Your task to perform on an android device: make emails show in primary in the gmail app Image 0: 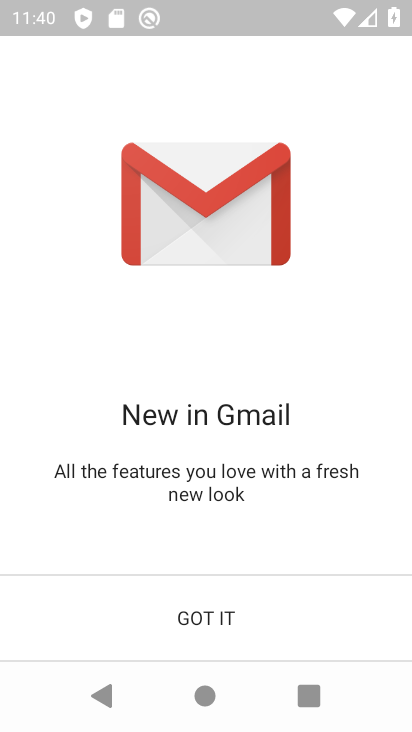
Step 0: press home button
Your task to perform on an android device: make emails show in primary in the gmail app Image 1: 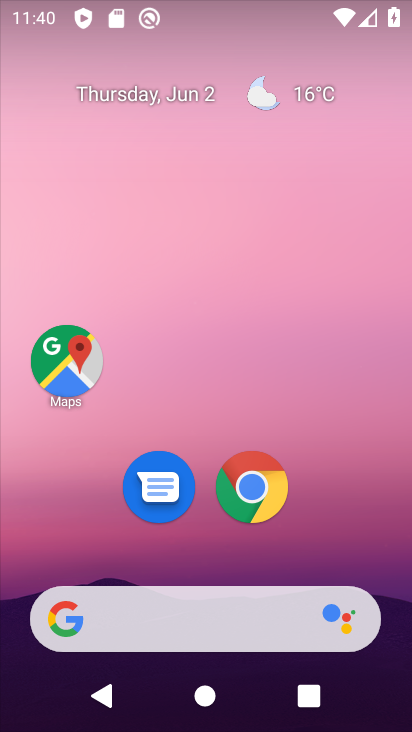
Step 1: drag from (311, 525) to (166, 0)
Your task to perform on an android device: make emails show in primary in the gmail app Image 2: 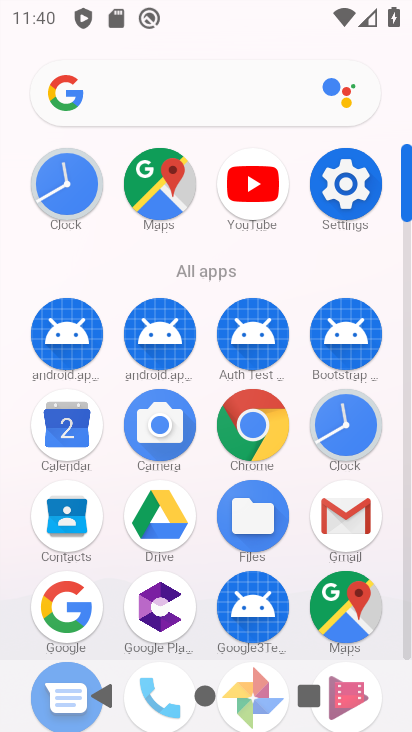
Step 2: click (342, 512)
Your task to perform on an android device: make emails show in primary in the gmail app Image 3: 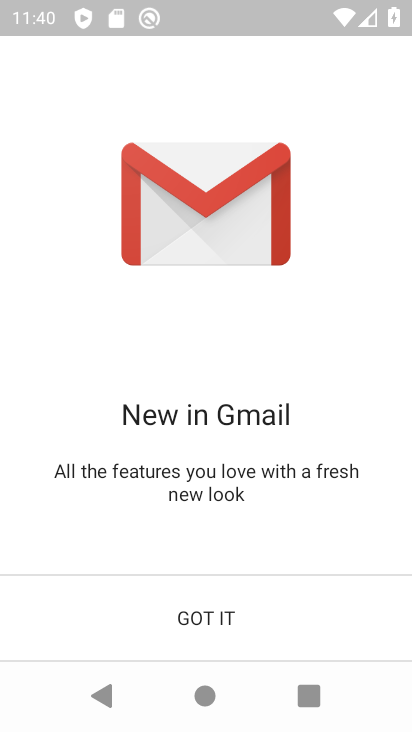
Step 3: click (137, 601)
Your task to perform on an android device: make emails show in primary in the gmail app Image 4: 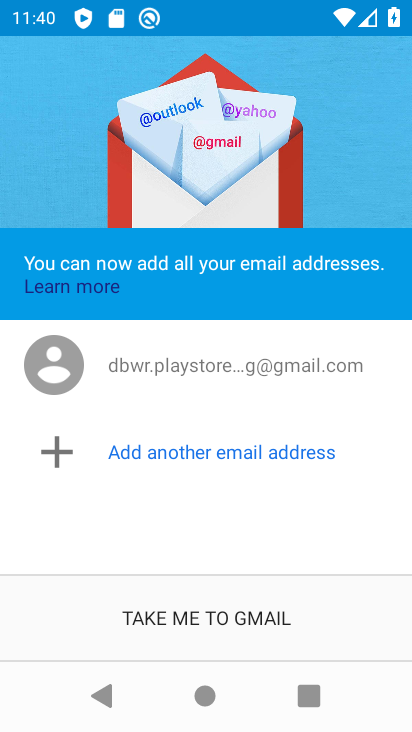
Step 4: click (157, 630)
Your task to perform on an android device: make emails show in primary in the gmail app Image 5: 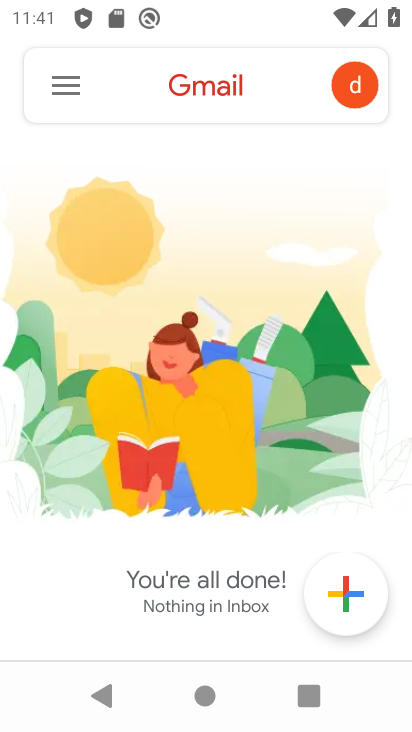
Step 5: click (56, 95)
Your task to perform on an android device: make emails show in primary in the gmail app Image 6: 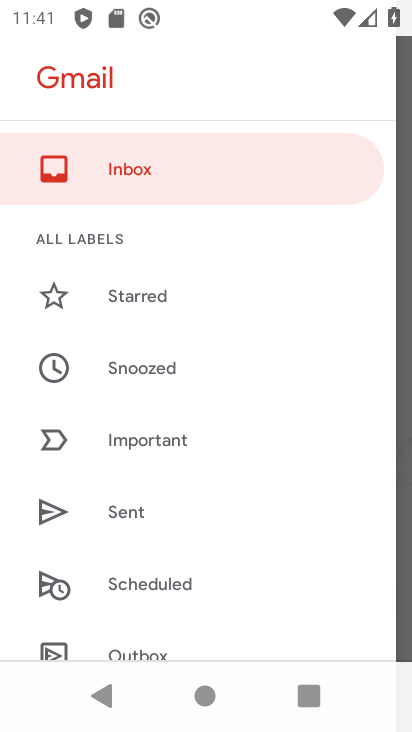
Step 6: drag from (233, 610) to (213, 21)
Your task to perform on an android device: make emails show in primary in the gmail app Image 7: 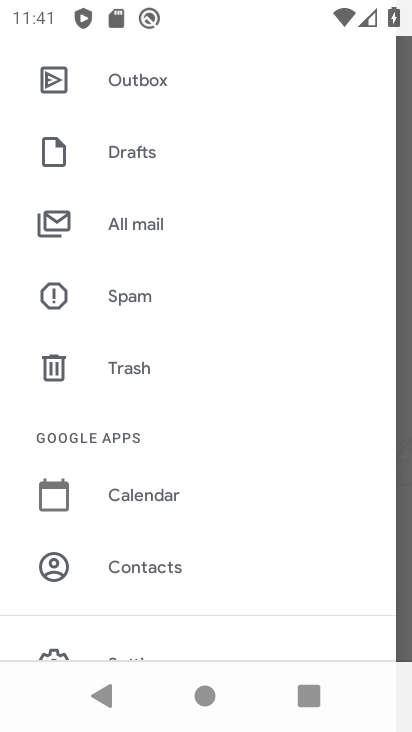
Step 7: drag from (246, 574) to (225, 295)
Your task to perform on an android device: make emails show in primary in the gmail app Image 8: 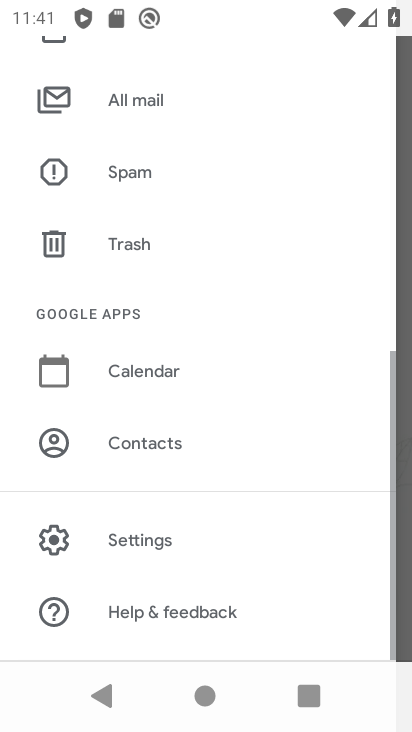
Step 8: click (132, 545)
Your task to perform on an android device: make emails show in primary in the gmail app Image 9: 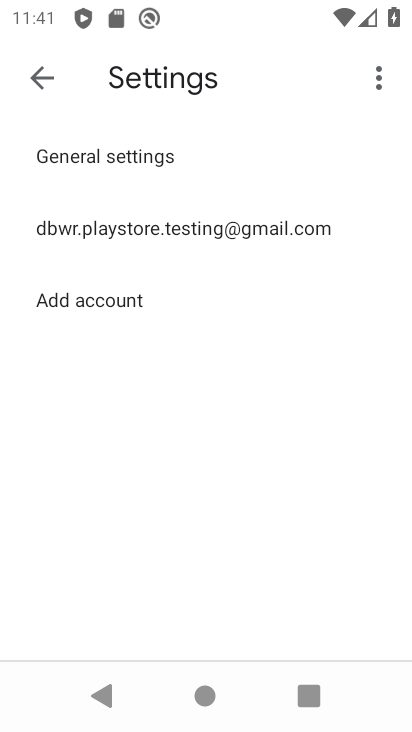
Step 9: click (118, 231)
Your task to perform on an android device: make emails show in primary in the gmail app Image 10: 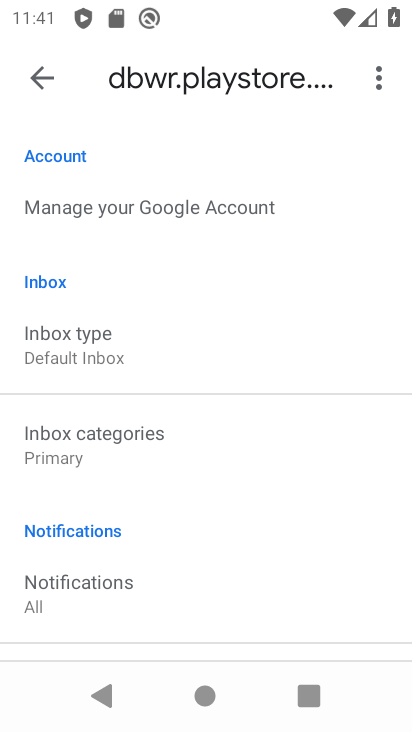
Step 10: click (91, 440)
Your task to perform on an android device: make emails show in primary in the gmail app Image 11: 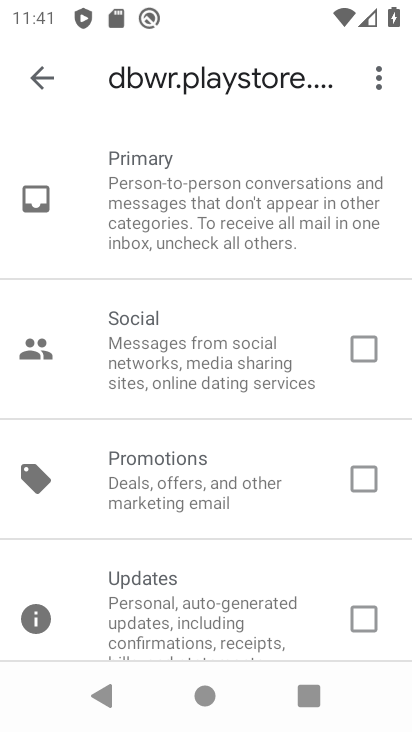
Step 11: drag from (321, 582) to (354, 170)
Your task to perform on an android device: make emails show in primary in the gmail app Image 12: 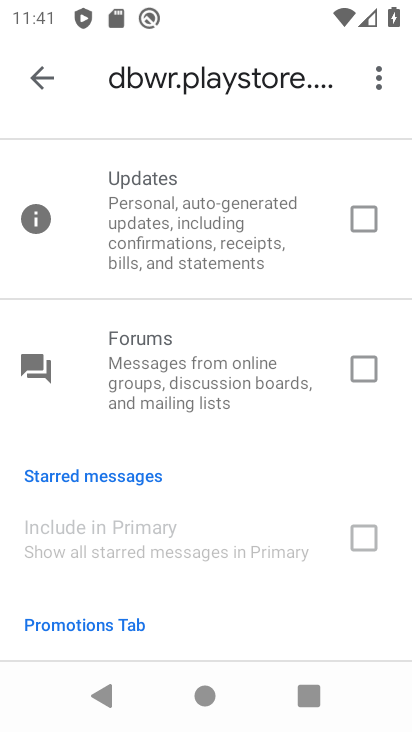
Step 12: press home button
Your task to perform on an android device: make emails show in primary in the gmail app Image 13: 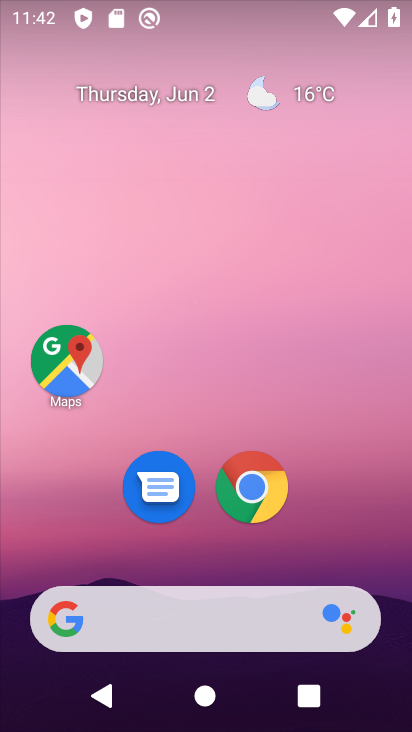
Step 13: press home button
Your task to perform on an android device: make emails show in primary in the gmail app Image 14: 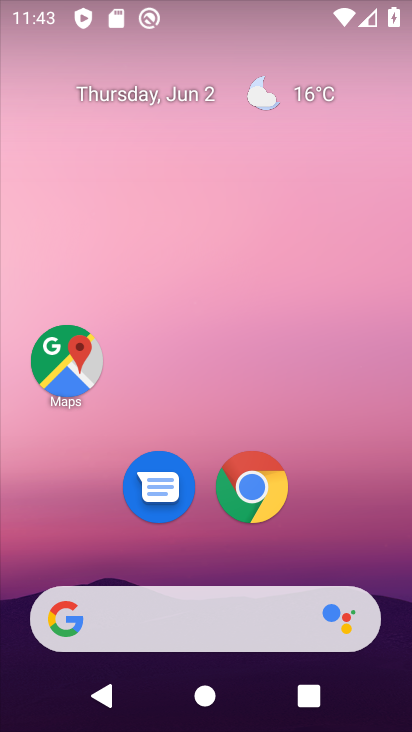
Step 14: drag from (333, 569) to (333, 499)
Your task to perform on an android device: make emails show in primary in the gmail app Image 15: 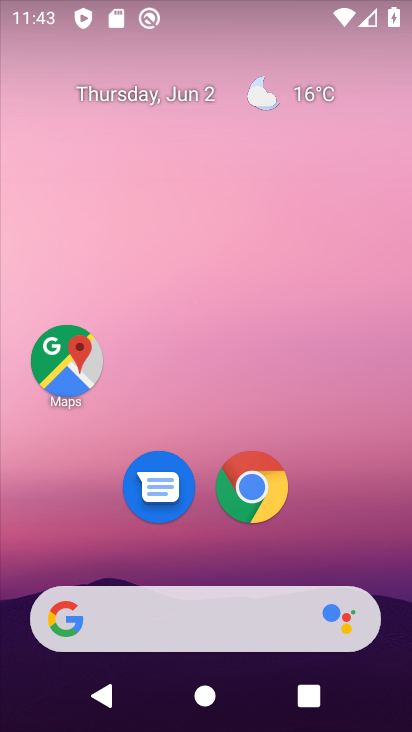
Step 15: drag from (291, 552) to (252, 43)
Your task to perform on an android device: make emails show in primary in the gmail app Image 16: 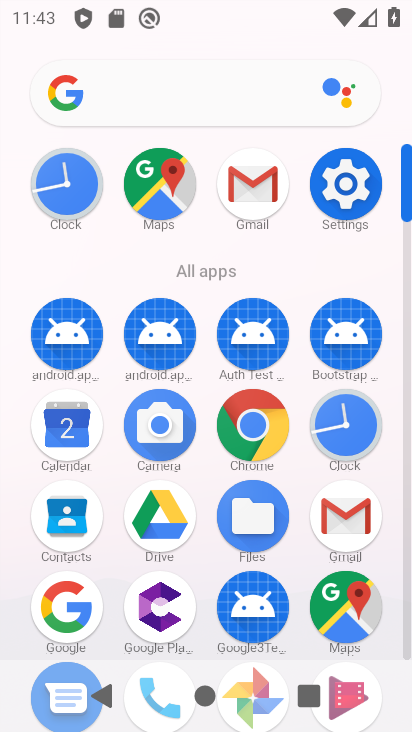
Step 16: click (271, 183)
Your task to perform on an android device: make emails show in primary in the gmail app Image 17: 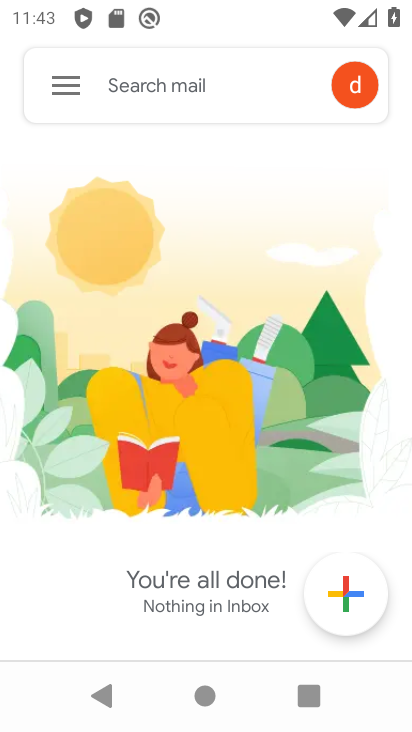
Step 17: click (68, 82)
Your task to perform on an android device: make emails show in primary in the gmail app Image 18: 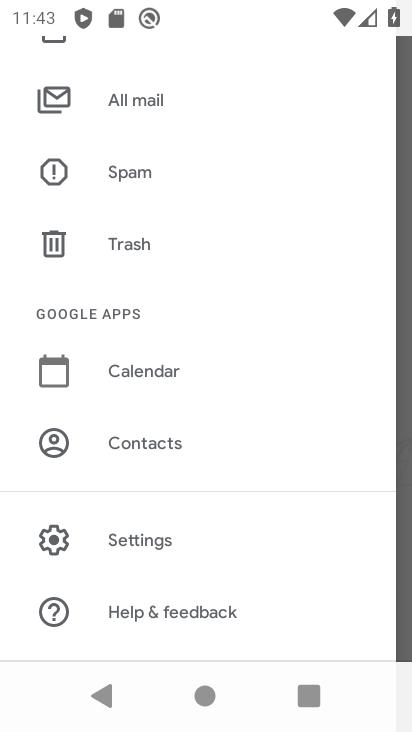
Step 18: click (115, 542)
Your task to perform on an android device: make emails show in primary in the gmail app Image 19: 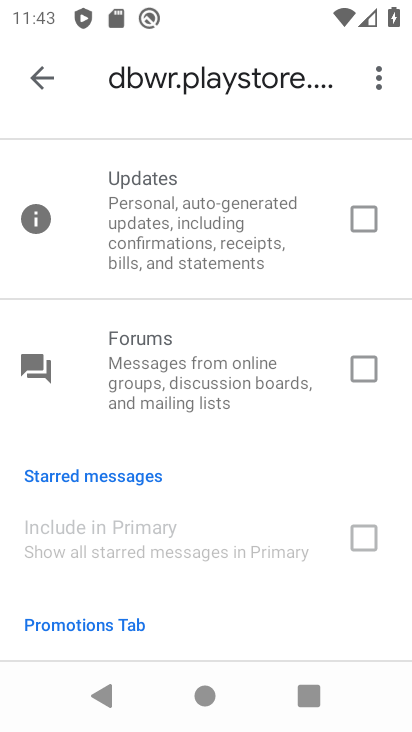
Step 19: click (358, 543)
Your task to perform on an android device: make emails show in primary in the gmail app Image 20: 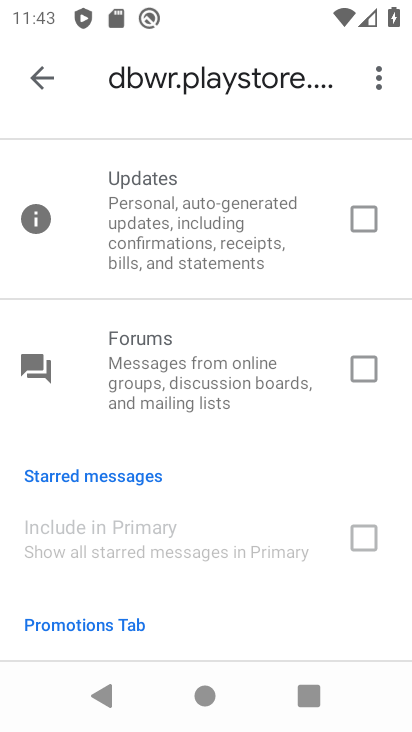
Step 20: click (365, 543)
Your task to perform on an android device: make emails show in primary in the gmail app Image 21: 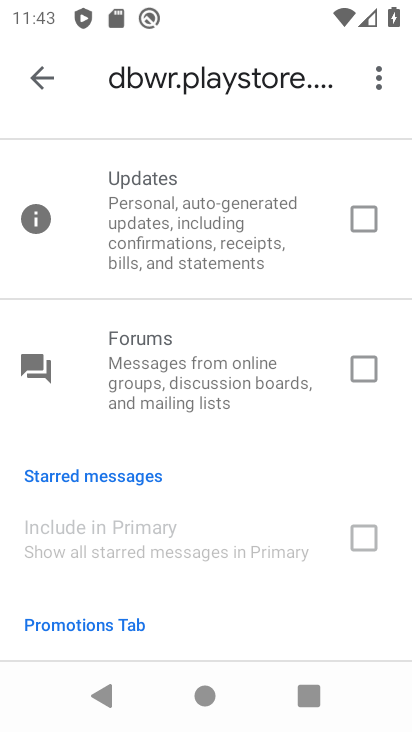
Step 21: drag from (224, 421) to (114, 719)
Your task to perform on an android device: make emails show in primary in the gmail app Image 22: 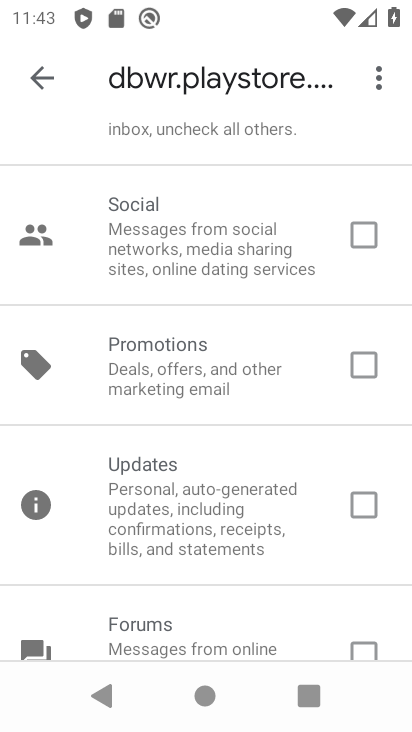
Step 22: drag from (243, 155) to (173, 714)
Your task to perform on an android device: make emails show in primary in the gmail app Image 23: 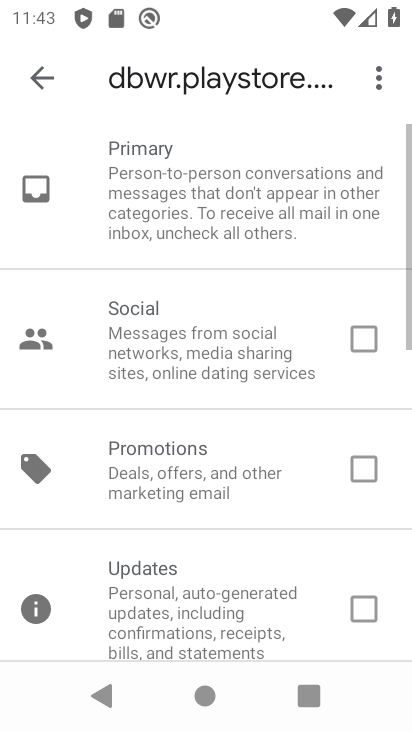
Step 23: drag from (171, 521) to (334, 62)
Your task to perform on an android device: make emails show in primary in the gmail app Image 24: 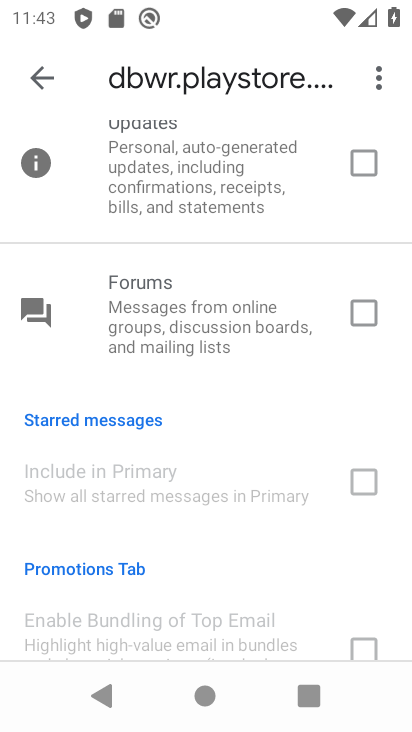
Step 24: click (368, 482)
Your task to perform on an android device: make emails show in primary in the gmail app Image 25: 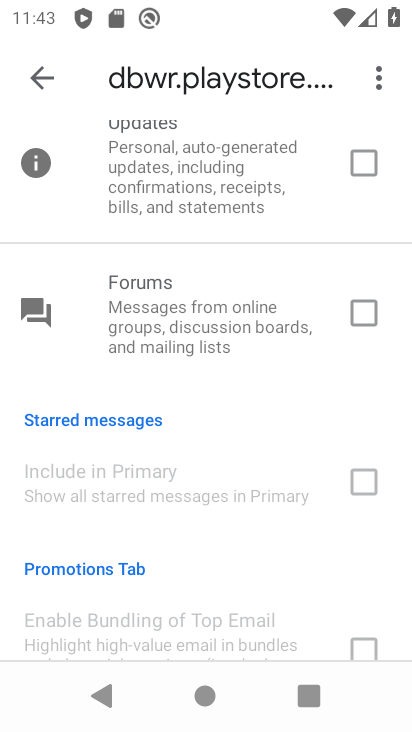
Step 25: drag from (222, 235) to (154, 724)
Your task to perform on an android device: make emails show in primary in the gmail app Image 26: 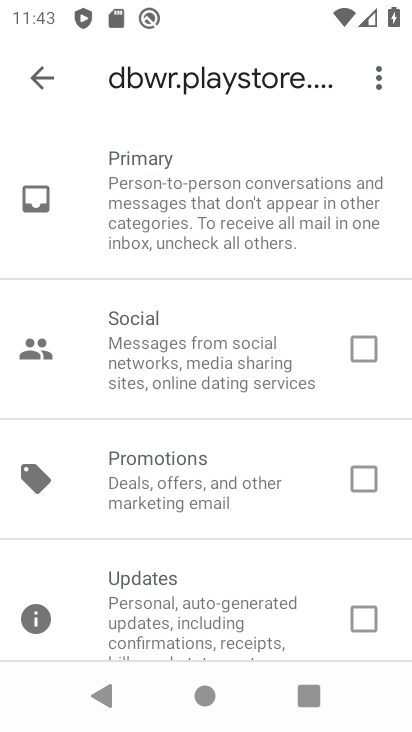
Step 26: click (166, 224)
Your task to perform on an android device: make emails show in primary in the gmail app Image 27: 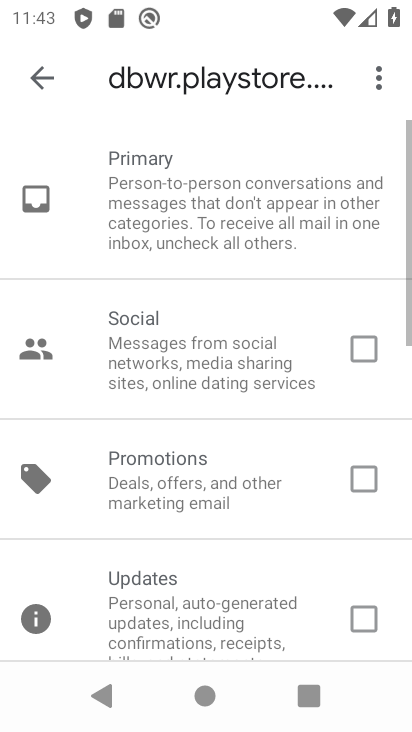
Step 27: task complete